Your task to perform on an android device: Open settings Image 0: 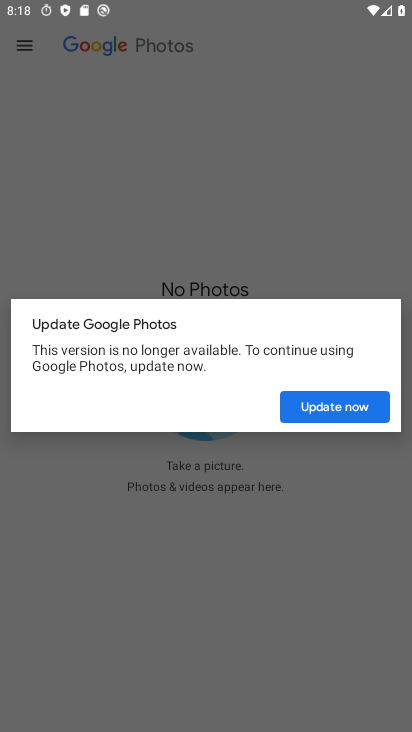
Step 0: press home button
Your task to perform on an android device: Open settings Image 1: 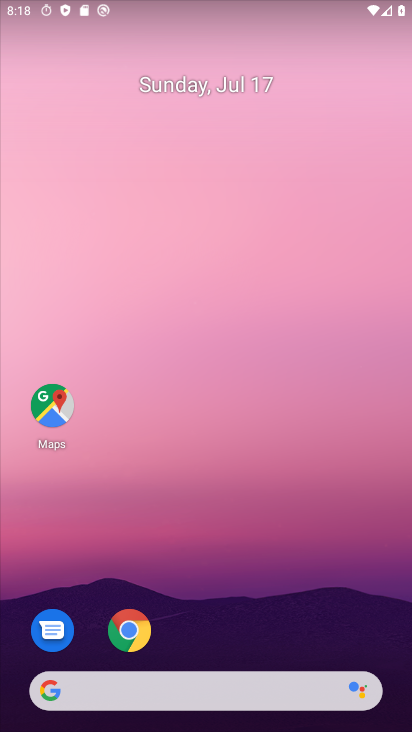
Step 1: drag from (7, 722) to (188, 324)
Your task to perform on an android device: Open settings Image 2: 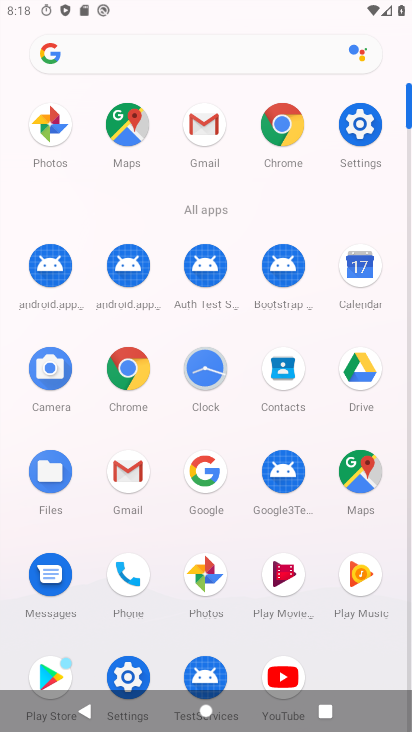
Step 2: click (116, 676)
Your task to perform on an android device: Open settings Image 3: 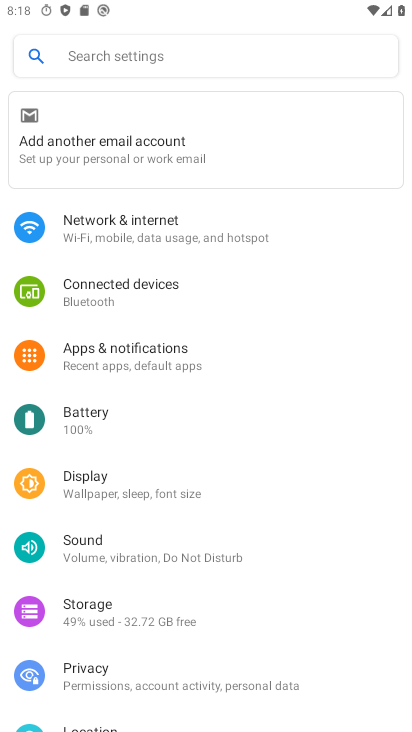
Step 3: task complete